Your task to perform on an android device: Go to CNN.com Image 0: 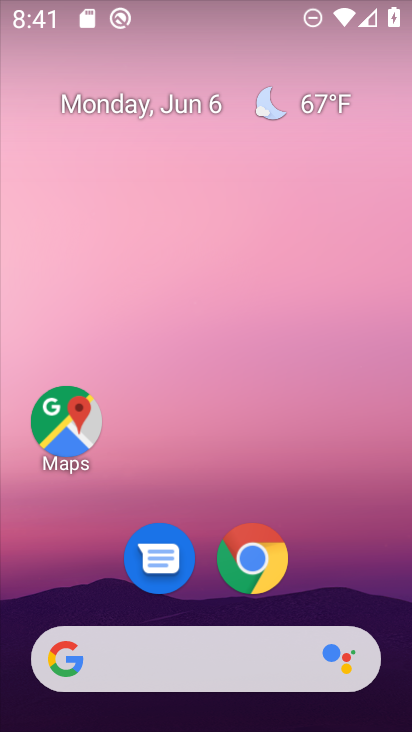
Step 0: drag from (210, 612) to (210, 109)
Your task to perform on an android device: Go to CNN.com Image 1: 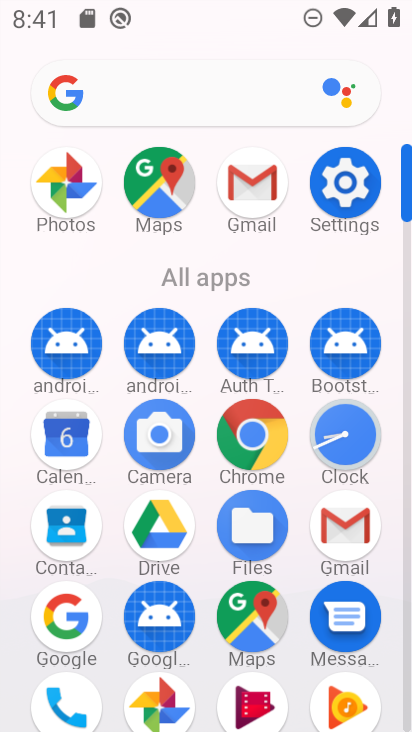
Step 1: click (76, 617)
Your task to perform on an android device: Go to CNN.com Image 2: 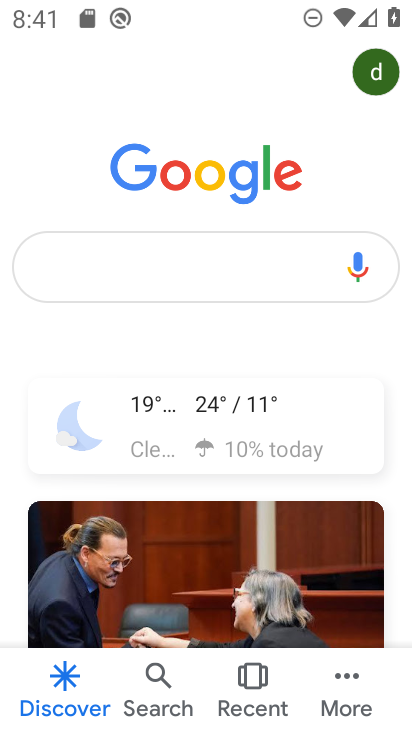
Step 2: click (154, 278)
Your task to perform on an android device: Go to CNN.com Image 3: 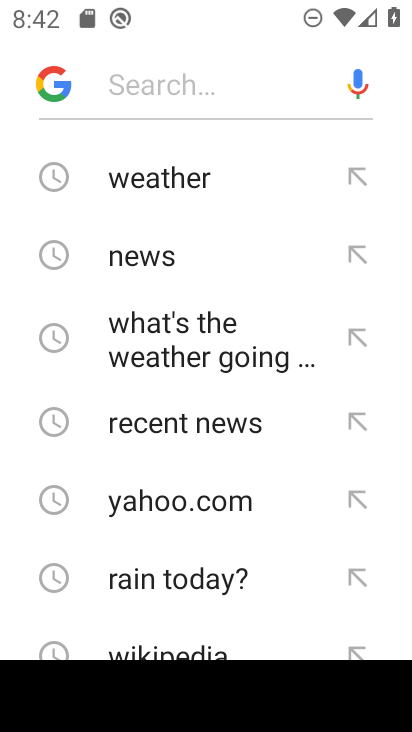
Step 3: drag from (201, 609) to (195, 271)
Your task to perform on an android device: Go to CNN.com Image 4: 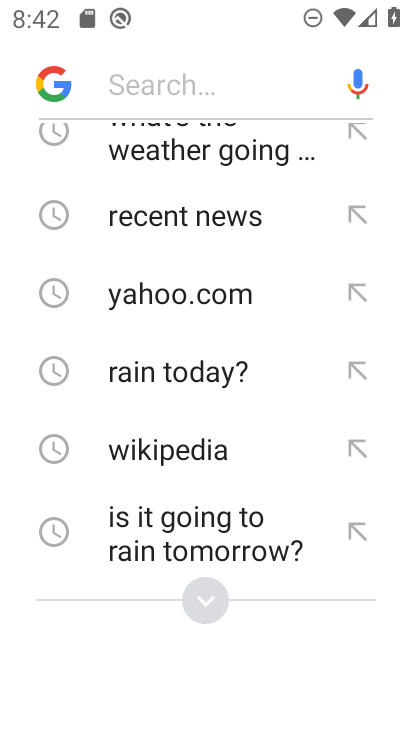
Step 4: click (216, 595)
Your task to perform on an android device: Go to CNN.com Image 5: 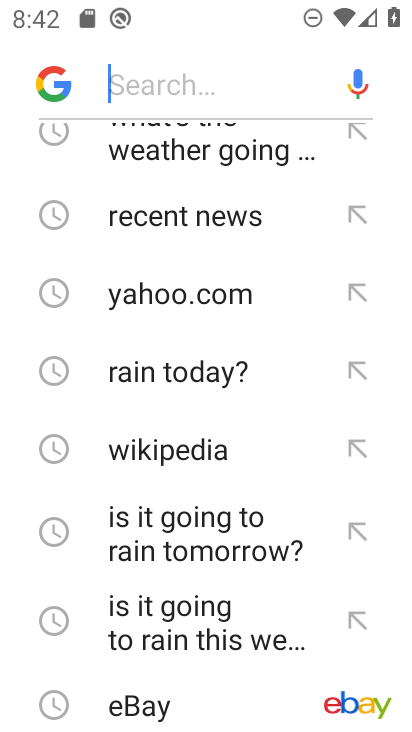
Step 5: drag from (207, 664) to (207, 331)
Your task to perform on an android device: Go to CNN.com Image 6: 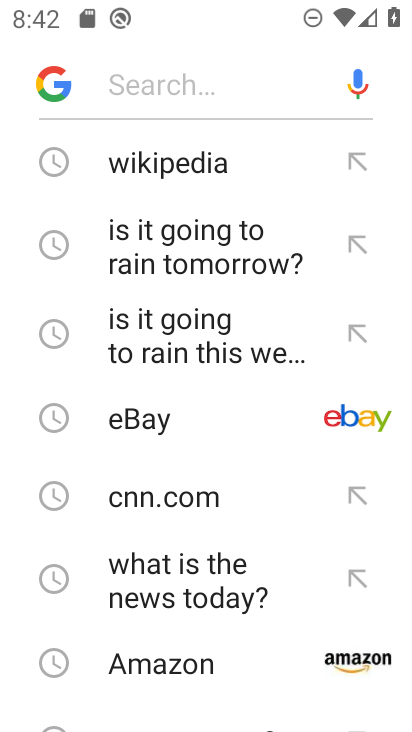
Step 6: click (152, 508)
Your task to perform on an android device: Go to CNN.com Image 7: 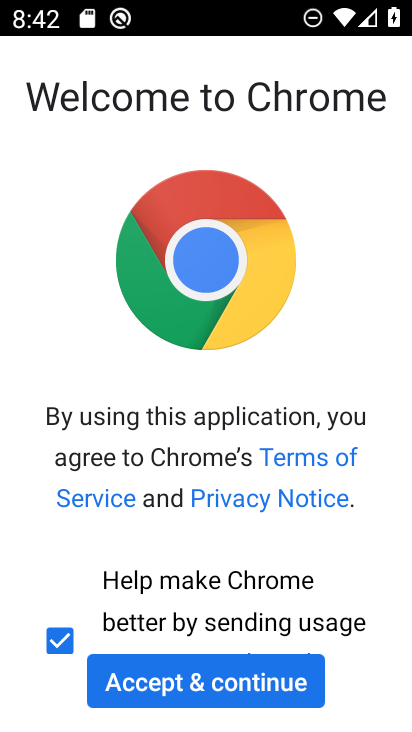
Step 7: click (248, 682)
Your task to perform on an android device: Go to CNN.com Image 8: 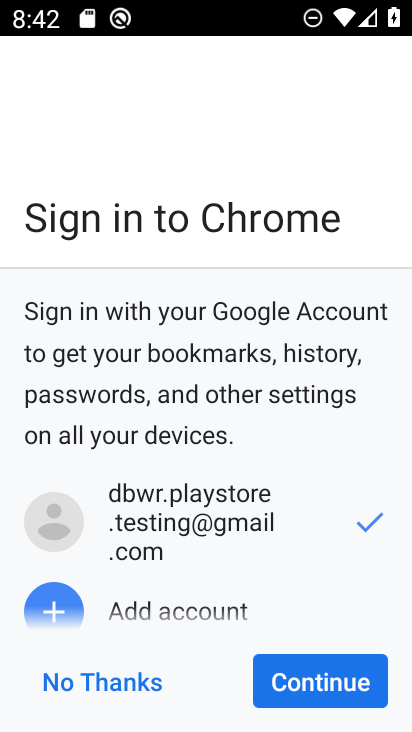
Step 8: click (285, 702)
Your task to perform on an android device: Go to CNN.com Image 9: 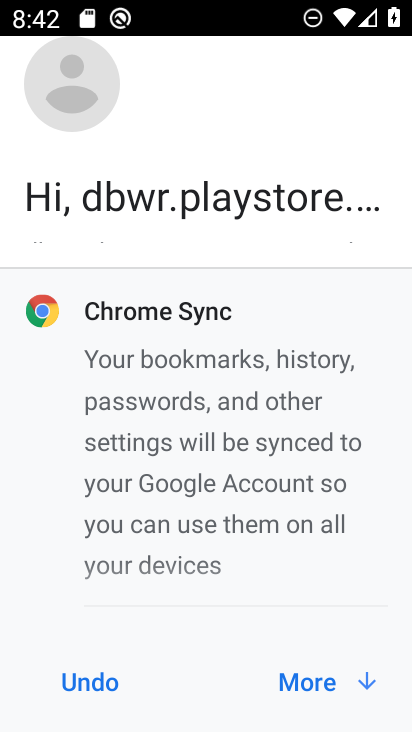
Step 9: click (280, 686)
Your task to perform on an android device: Go to CNN.com Image 10: 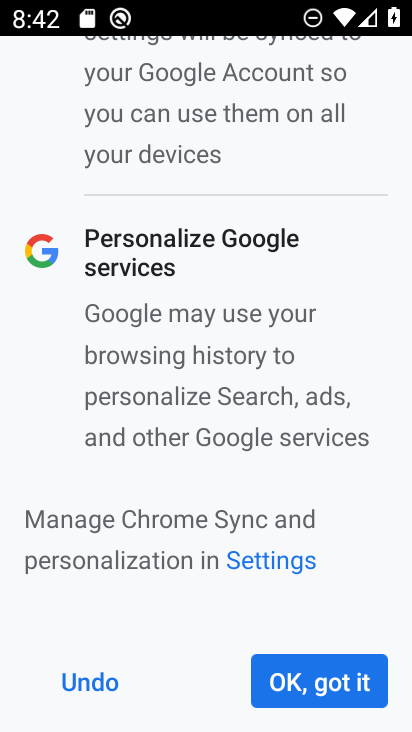
Step 10: click (280, 685)
Your task to perform on an android device: Go to CNN.com Image 11: 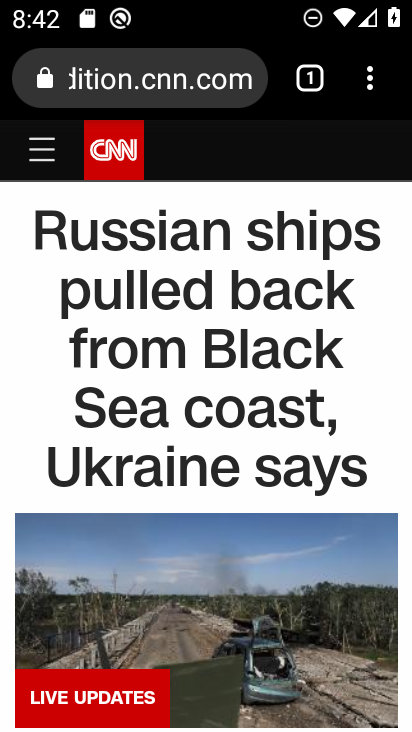
Step 11: task complete